Your task to perform on an android device: Go to network settings Image 0: 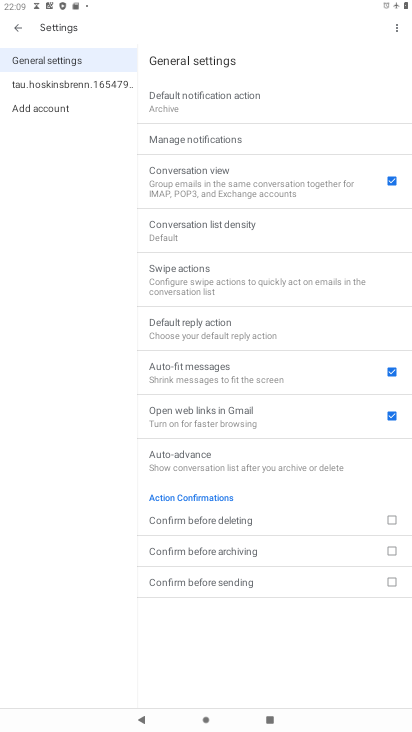
Step 0: press home button
Your task to perform on an android device: Go to network settings Image 1: 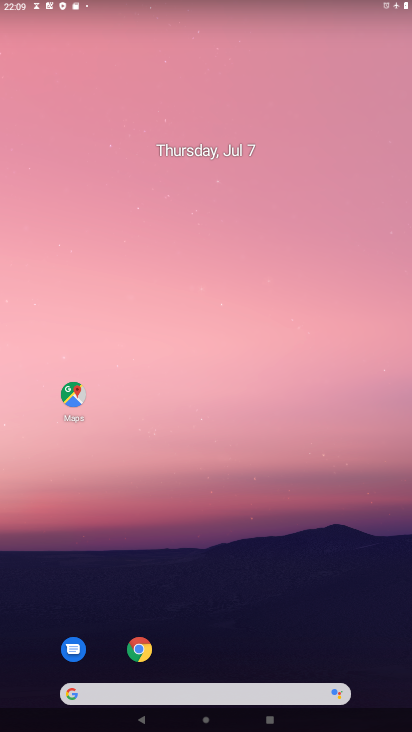
Step 1: drag from (221, 685) to (221, 25)
Your task to perform on an android device: Go to network settings Image 2: 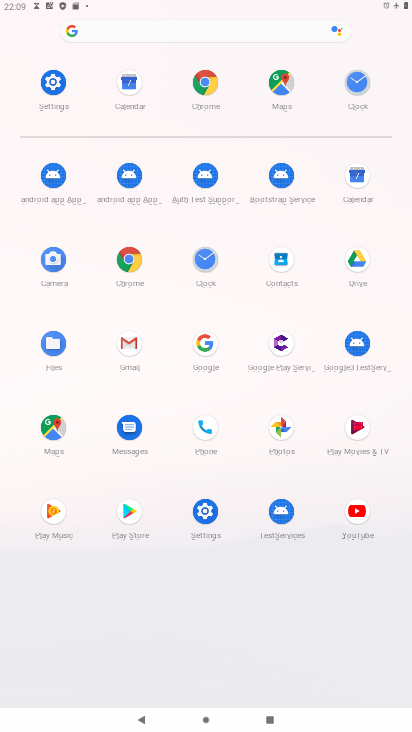
Step 2: click (209, 507)
Your task to perform on an android device: Go to network settings Image 3: 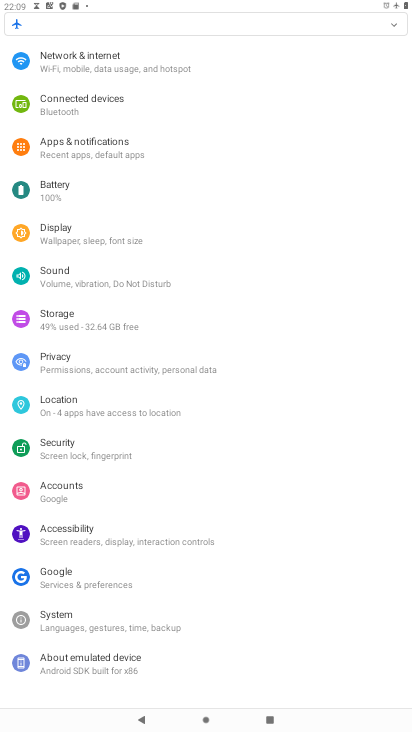
Step 3: click (100, 70)
Your task to perform on an android device: Go to network settings Image 4: 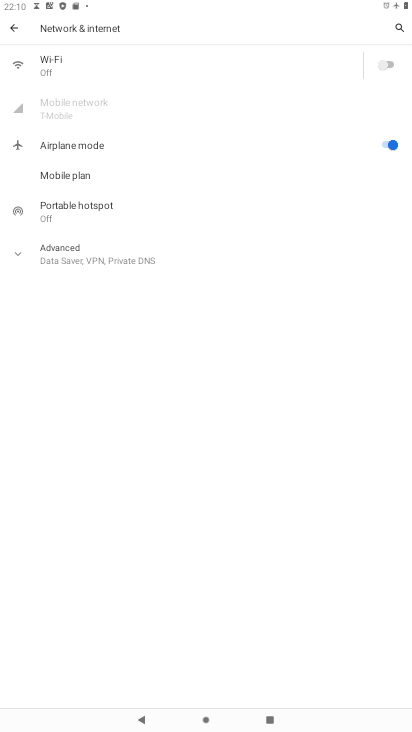
Step 4: task complete